Your task to perform on an android device: Check the weather Image 0: 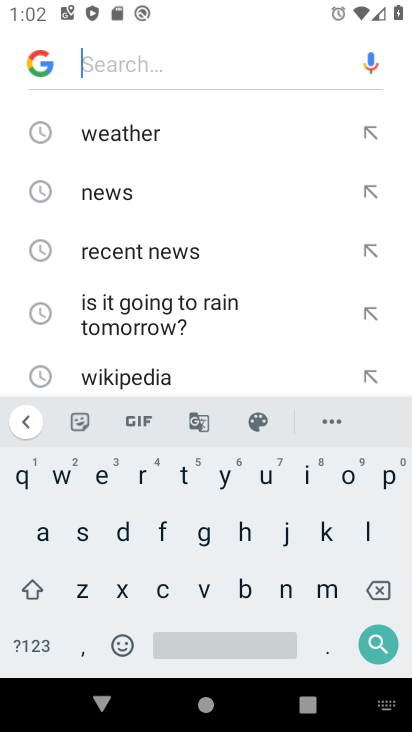
Step 0: press home button
Your task to perform on an android device: Check the weather Image 1: 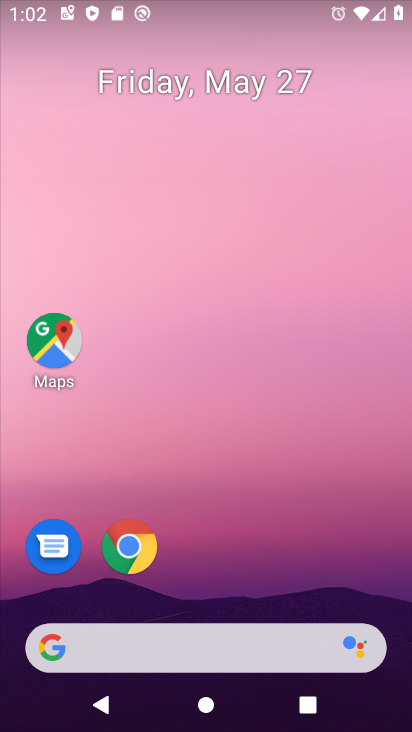
Step 1: drag from (262, 668) to (189, 135)
Your task to perform on an android device: Check the weather Image 2: 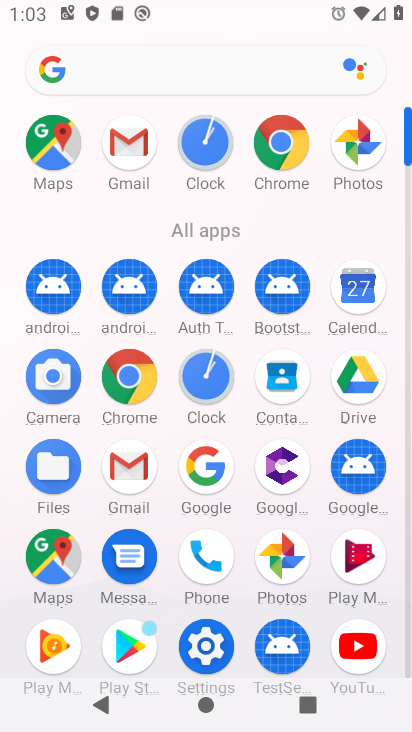
Step 2: click (132, 73)
Your task to perform on an android device: Check the weather Image 3: 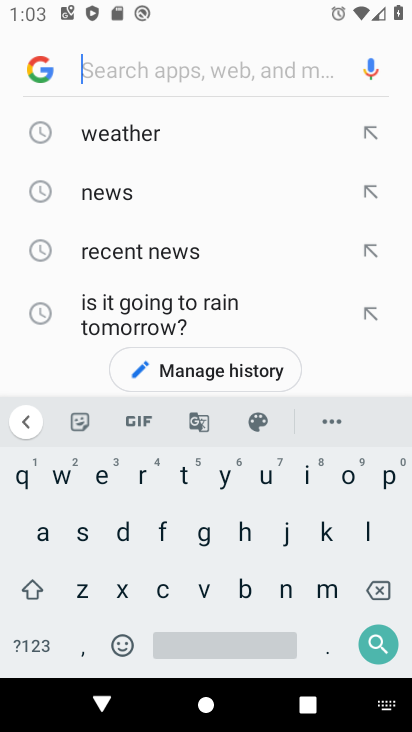
Step 3: click (106, 128)
Your task to perform on an android device: Check the weather Image 4: 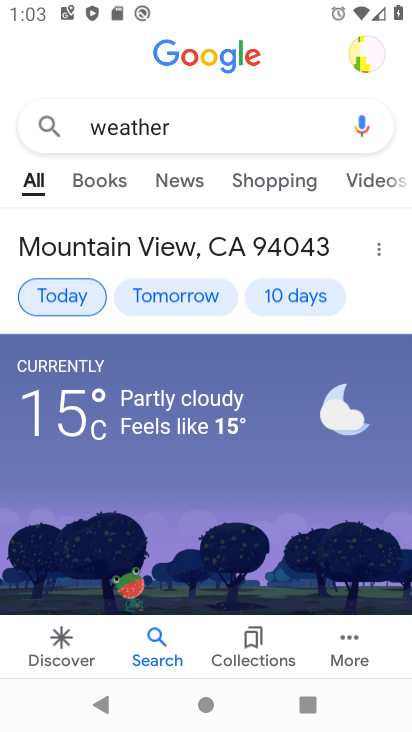
Step 4: task complete